Your task to perform on an android device: Open Maps and search for coffee Image 0: 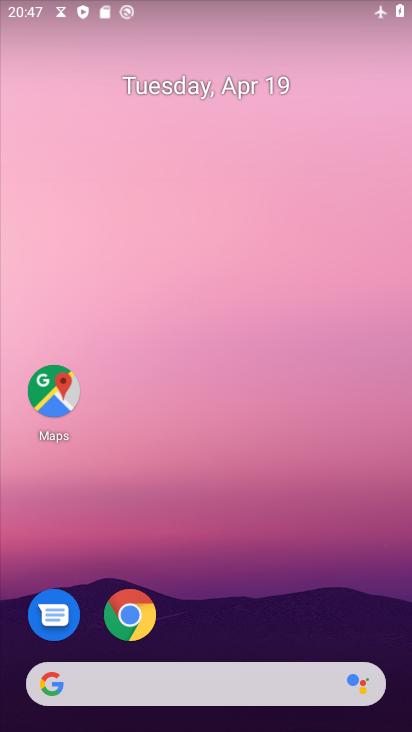
Step 0: drag from (338, 592) to (311, 30)
Your task to perform on an android device: Open Maps and search for coffee Image 1: 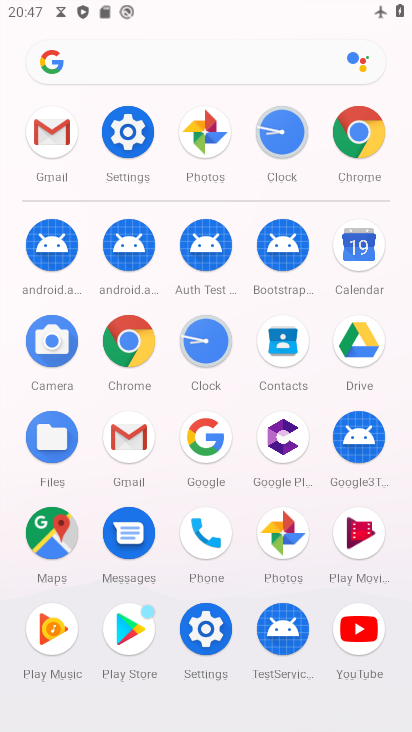
Step 1: click (51, 531)
Your task to perform on an android device: Open Maps and search for coffee Image 2: 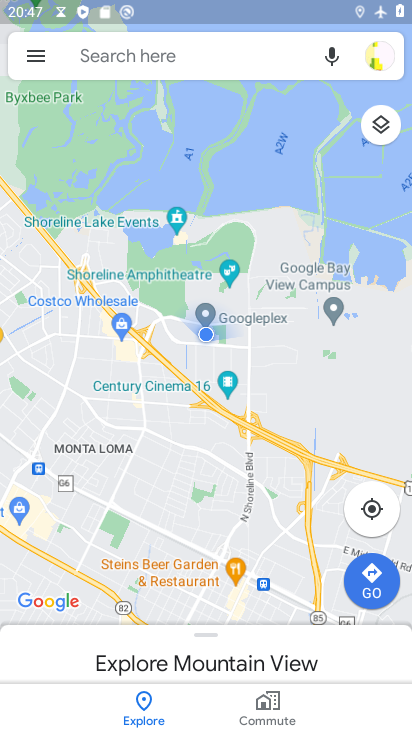
Step 2: click (216, 67)
Your task to perform on an android device: Open Maps and search for coffee Image 3: 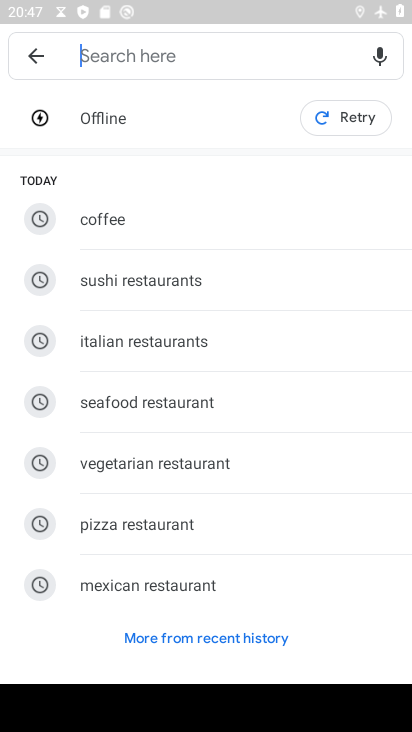
Step 3: click (180, 224)
Your task to perform on an android device: Open Maps and search for coffee Image 4: 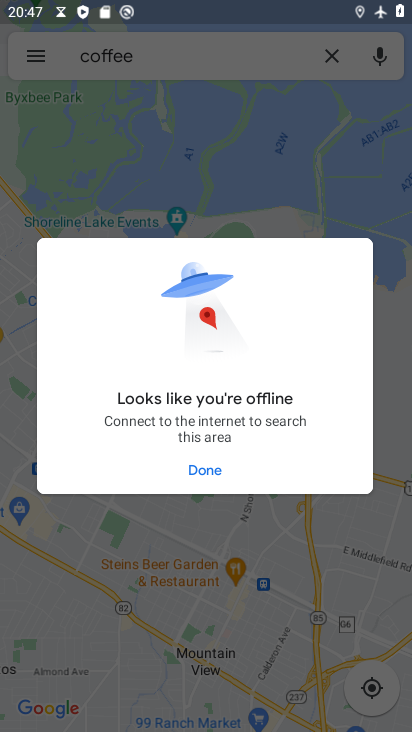
Step 4: click (216, 471)
Your task to perform on an android device: Open Maps and search for coffee Image 5: 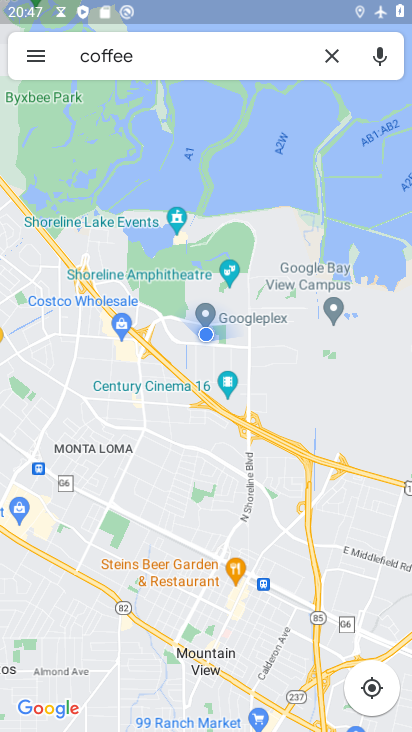
Step 5: task complete